Your task to perform on an android device: Open Reddit.com Image 0: 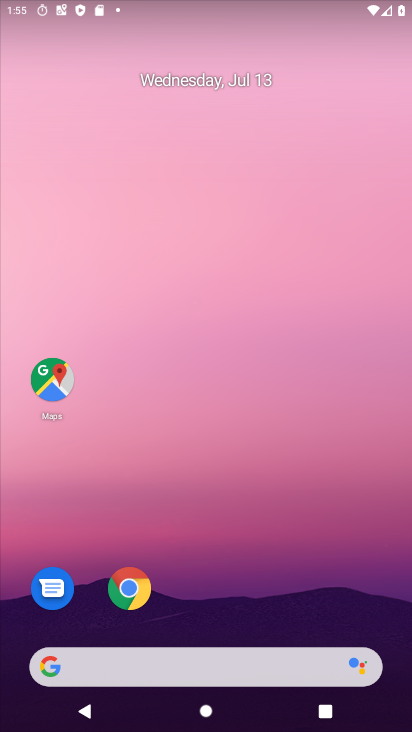
Step 0: drag from (157, 650) to (169, 290)
Your task to perform on an android device: Open Reddit.com Image 1: 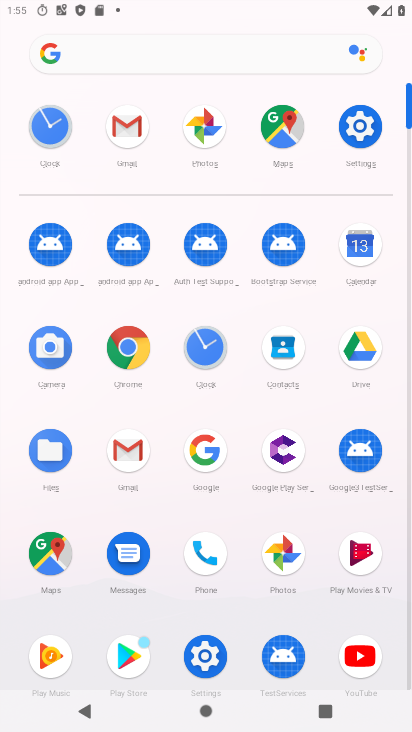
Step 1: click (206, 454)
Your task to perform on an android device: Open Reddit.com Image 2: 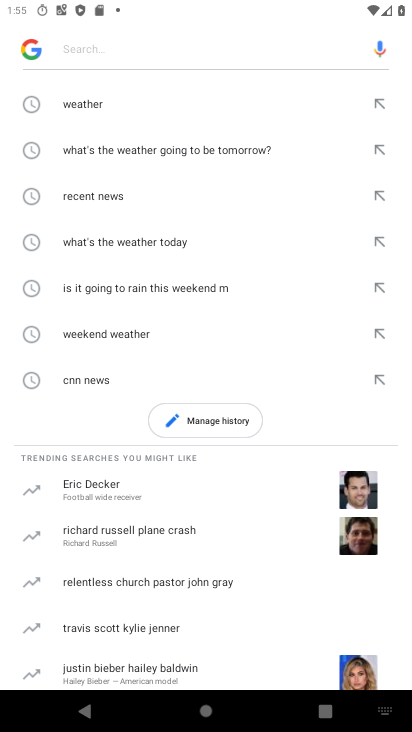
Step 2: type "Reddit.com"
Your task to perform on an android device: Open Reddit.com Image 3: 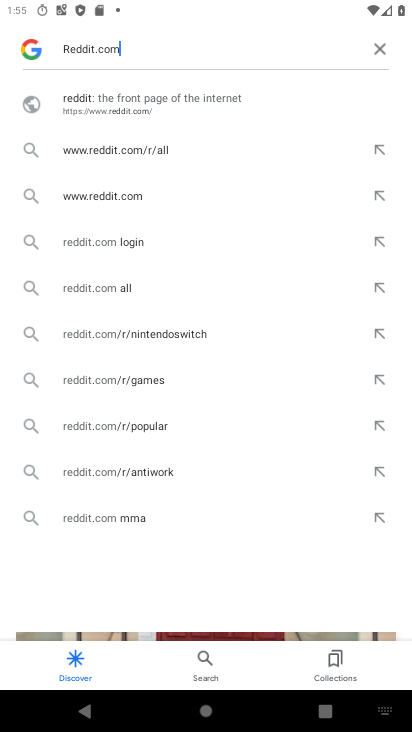
Step 3: click (70, 102)
Your task to perform on an android device: Open Reddit.com Image 4: 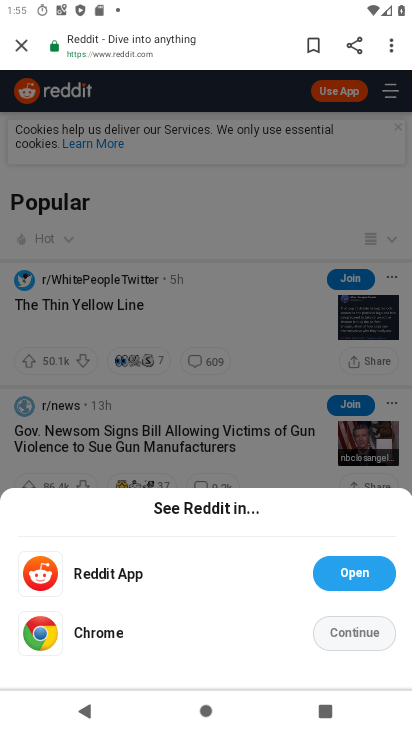
Step 4: task complete